Your task to perform on an android device: turn on the 12-hour format for clock Image 0: 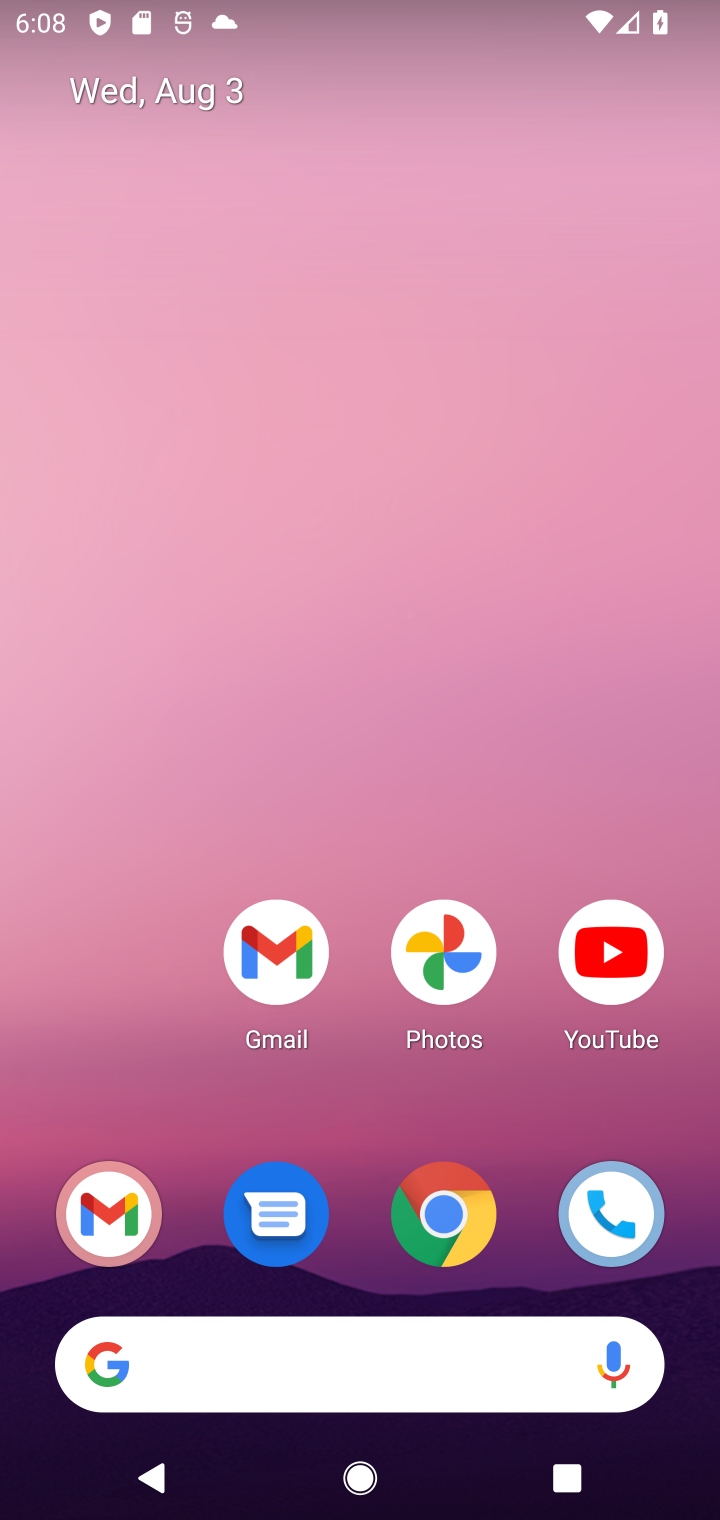
Step 0: drag from (32, 1032) to (322, 43)
Your task to perform on an android device: turn on the 12-hour format for clock Image 1: 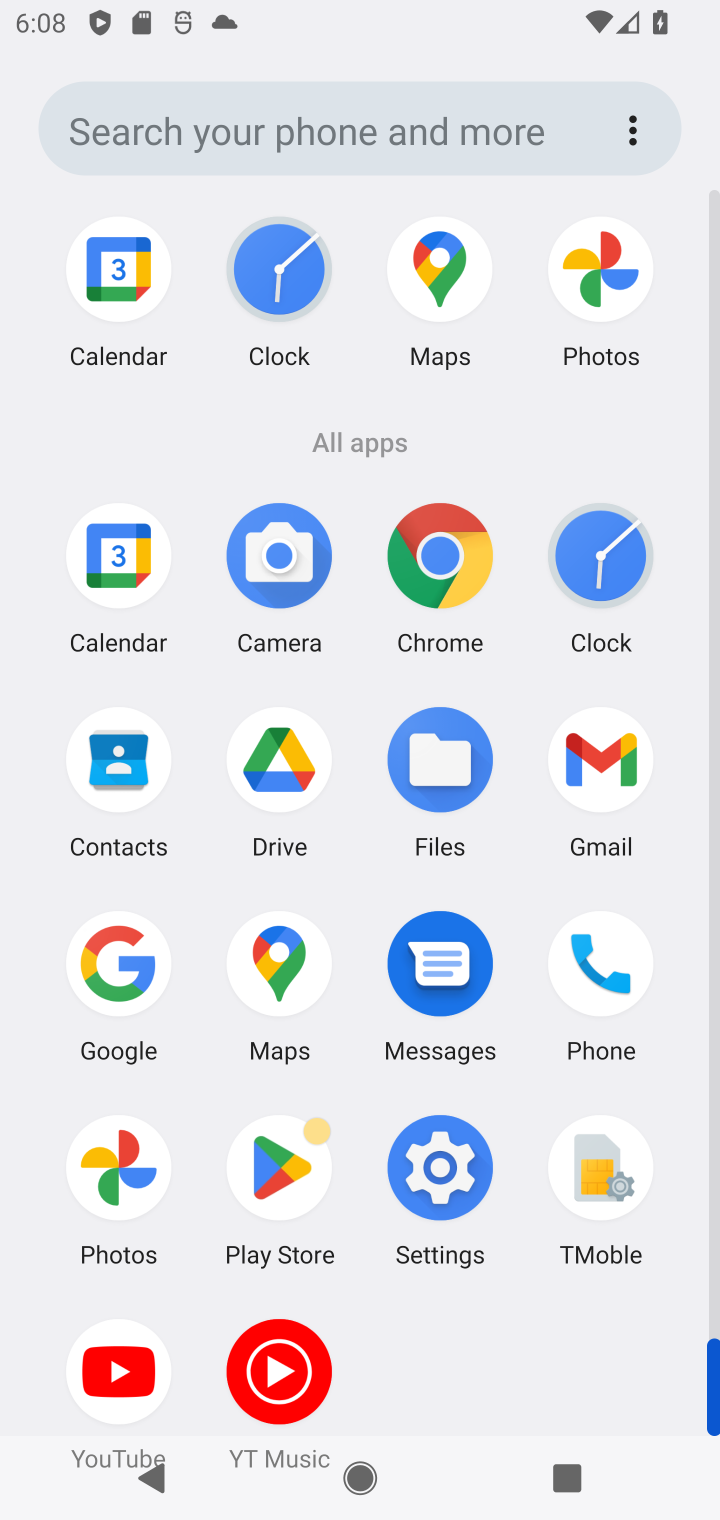
Step 1: click (609, 553)
Your task to perform on an android device: turn on the 12-hour format for clock Image 2: 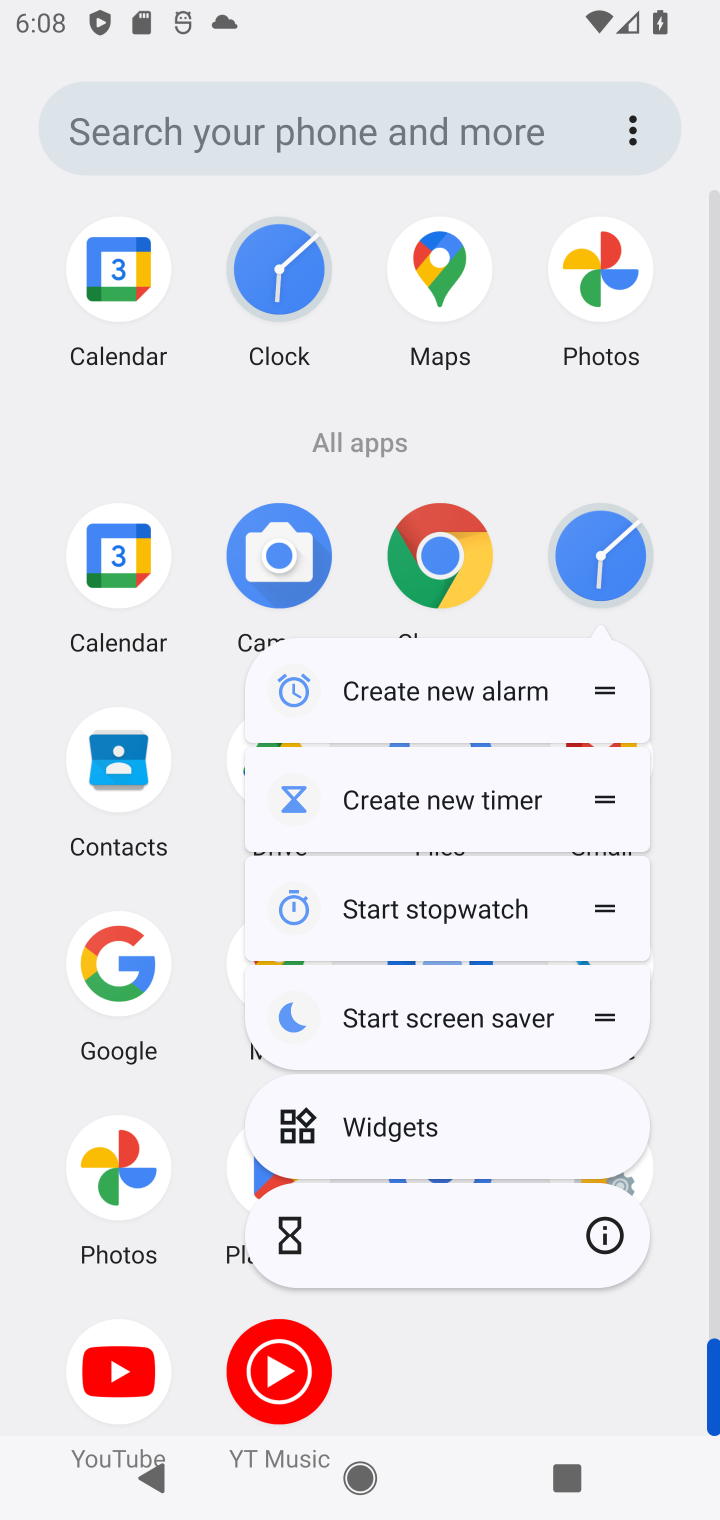
Step 2: click (574, 583)
Your task to perform on an android device: turn on the 12-hour format for clock Image 3: 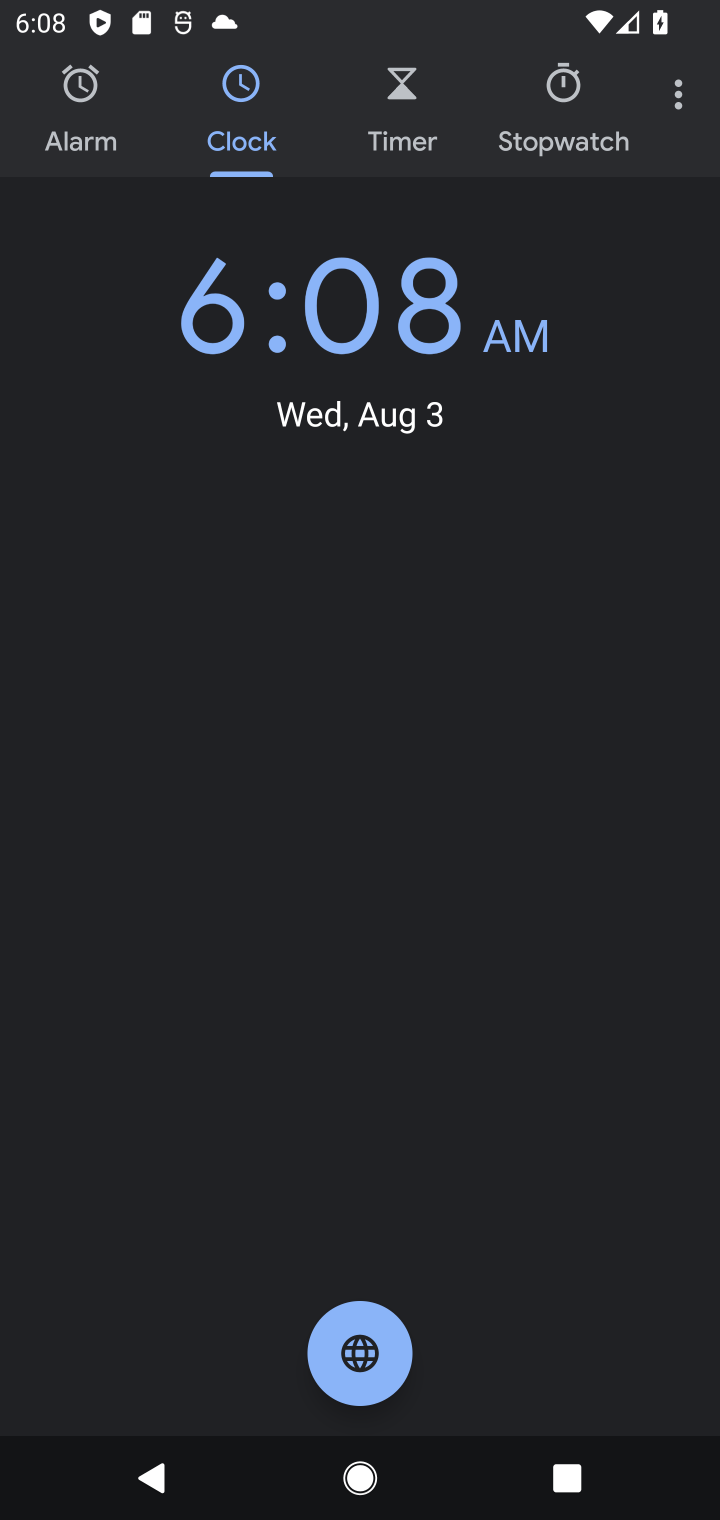
Step 3: click (676, 79)
Your task to perform on an android device: turn on the 12-hour format for clock Image 4: 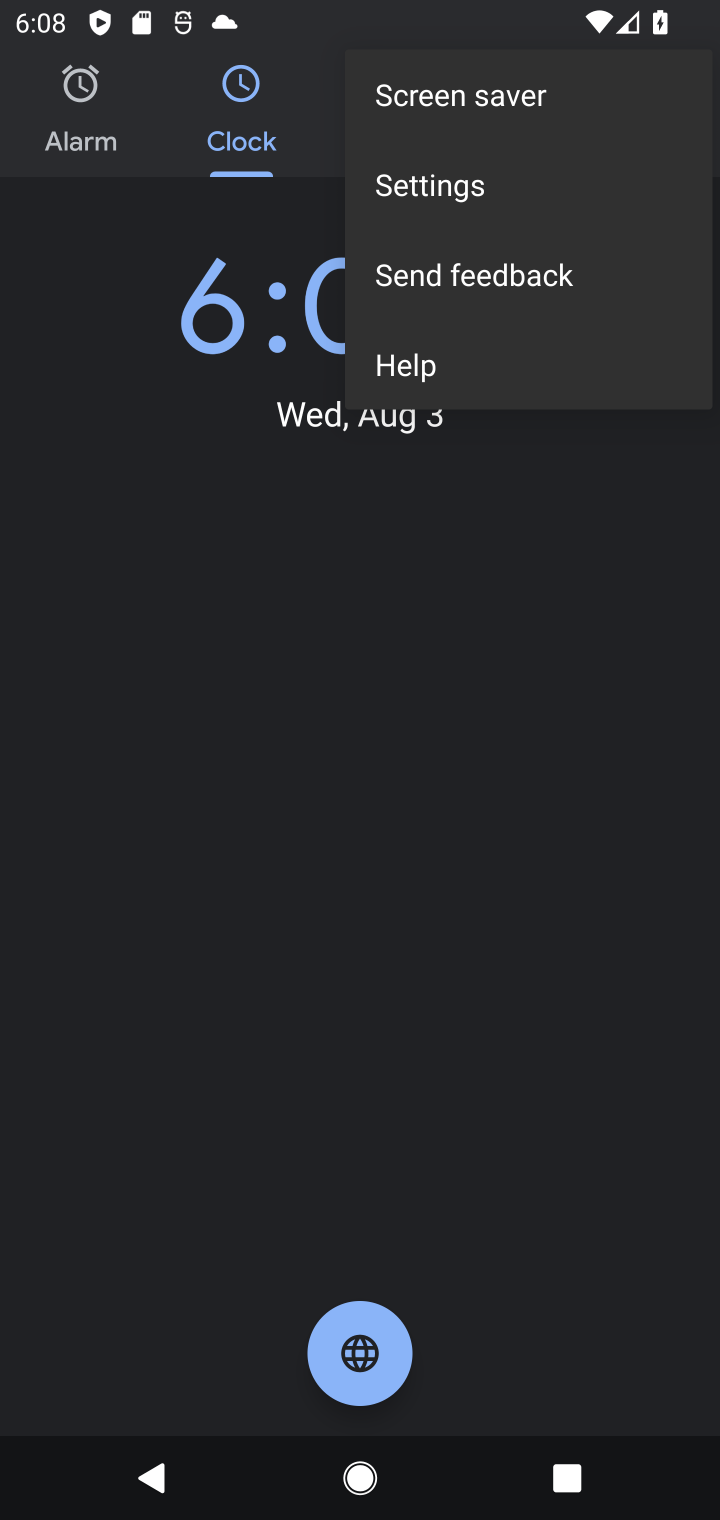
Step 4: click (473, 194)
Your task to perform on an android device: turn on the 12-hour format for clock Image 5: 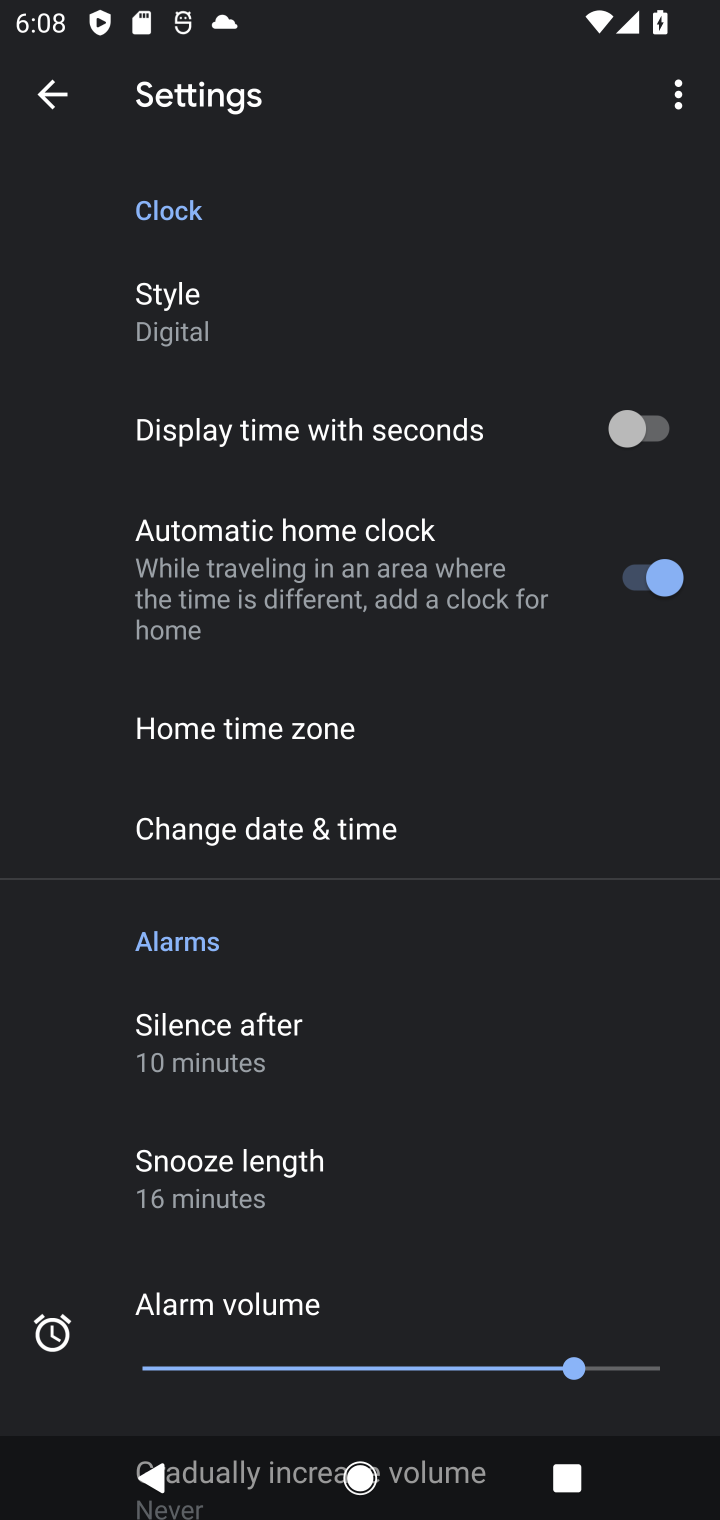
Step 5: drag from (339, 1187) to (509, 260)
Your task to perform on an android device: turn on the 12-hour format for clock Image 6: 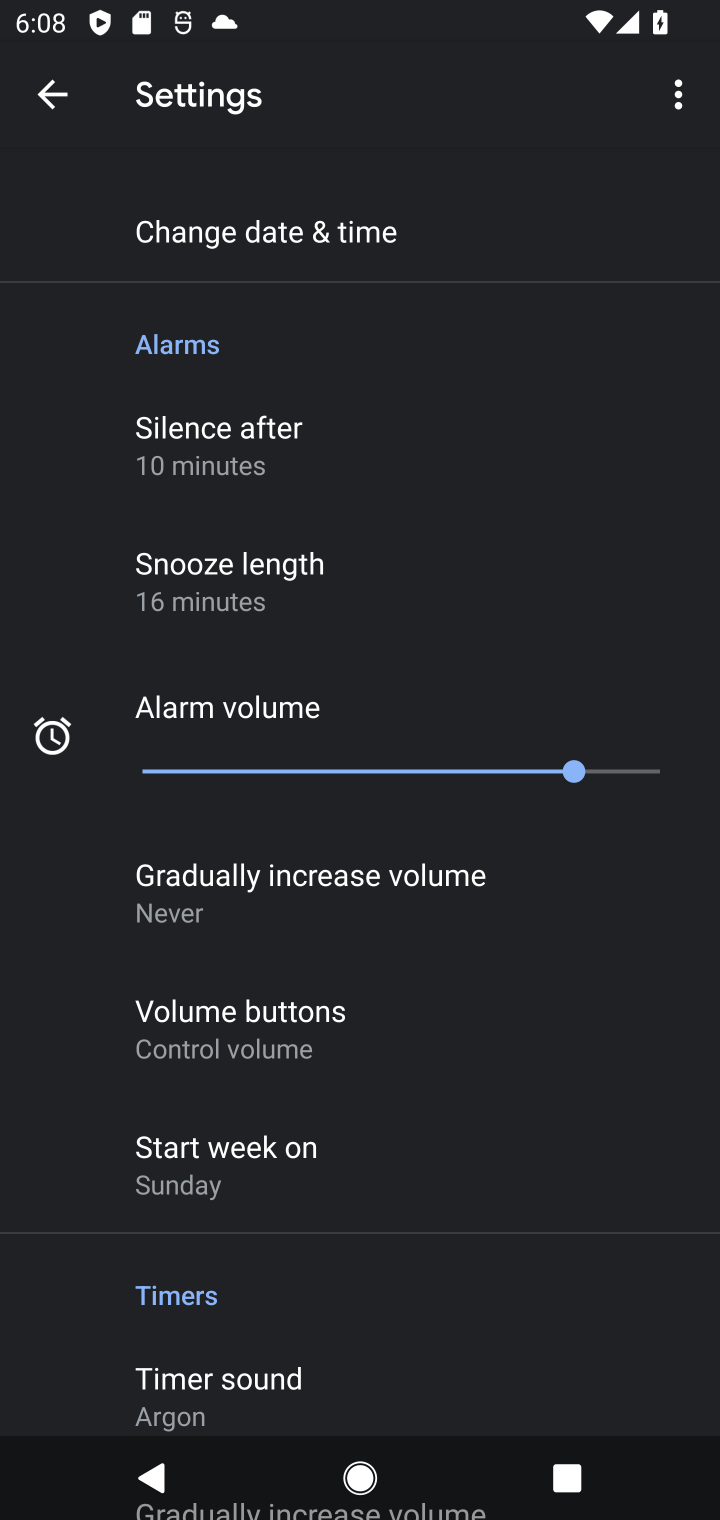
Step 6: drag from (481, 561) to (294, 1393)
Your task to perform on an android device: turn on the 12-hour format for clock Image 7: 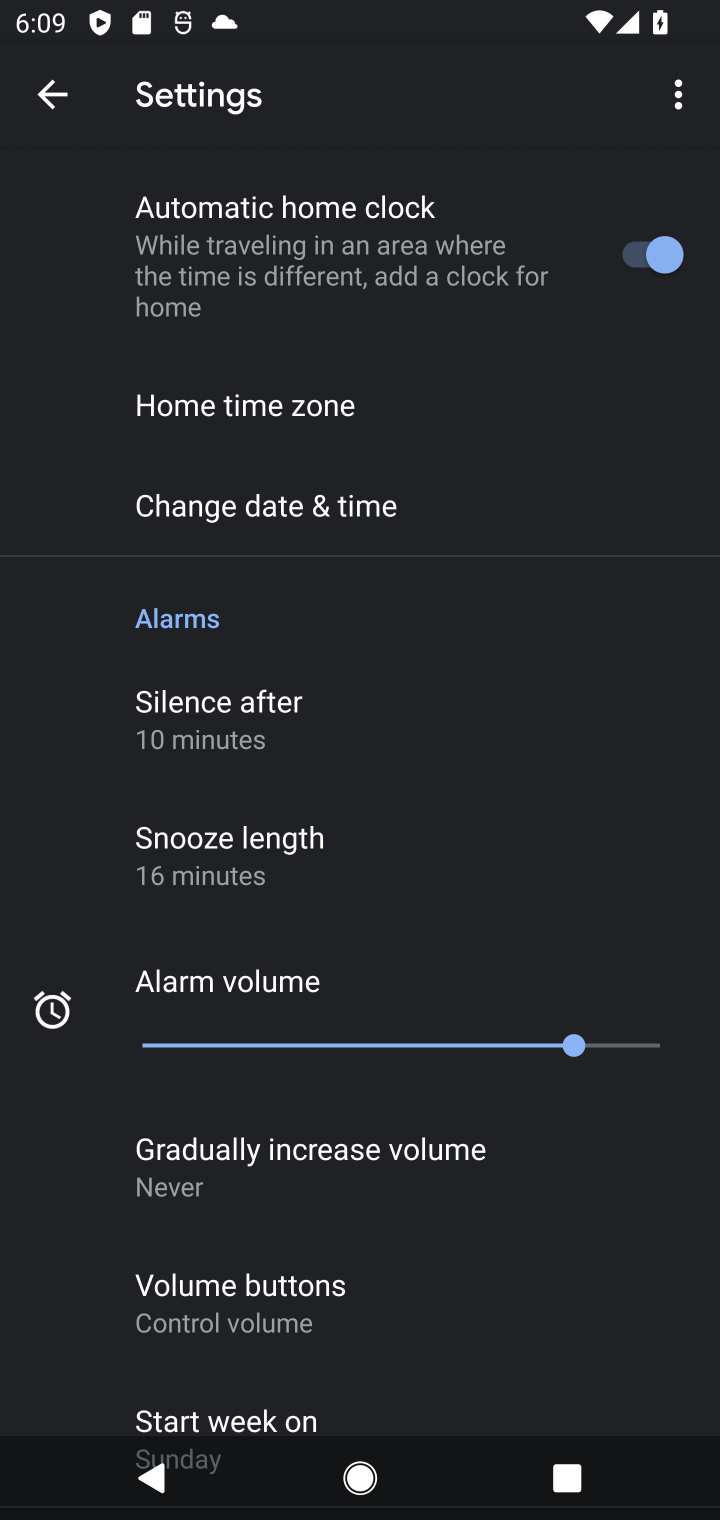
Step 7: drag from (413, 640) to (301, 1472)
Your task to perform on an android device: turn on the 12-hour format for clock Image 8: 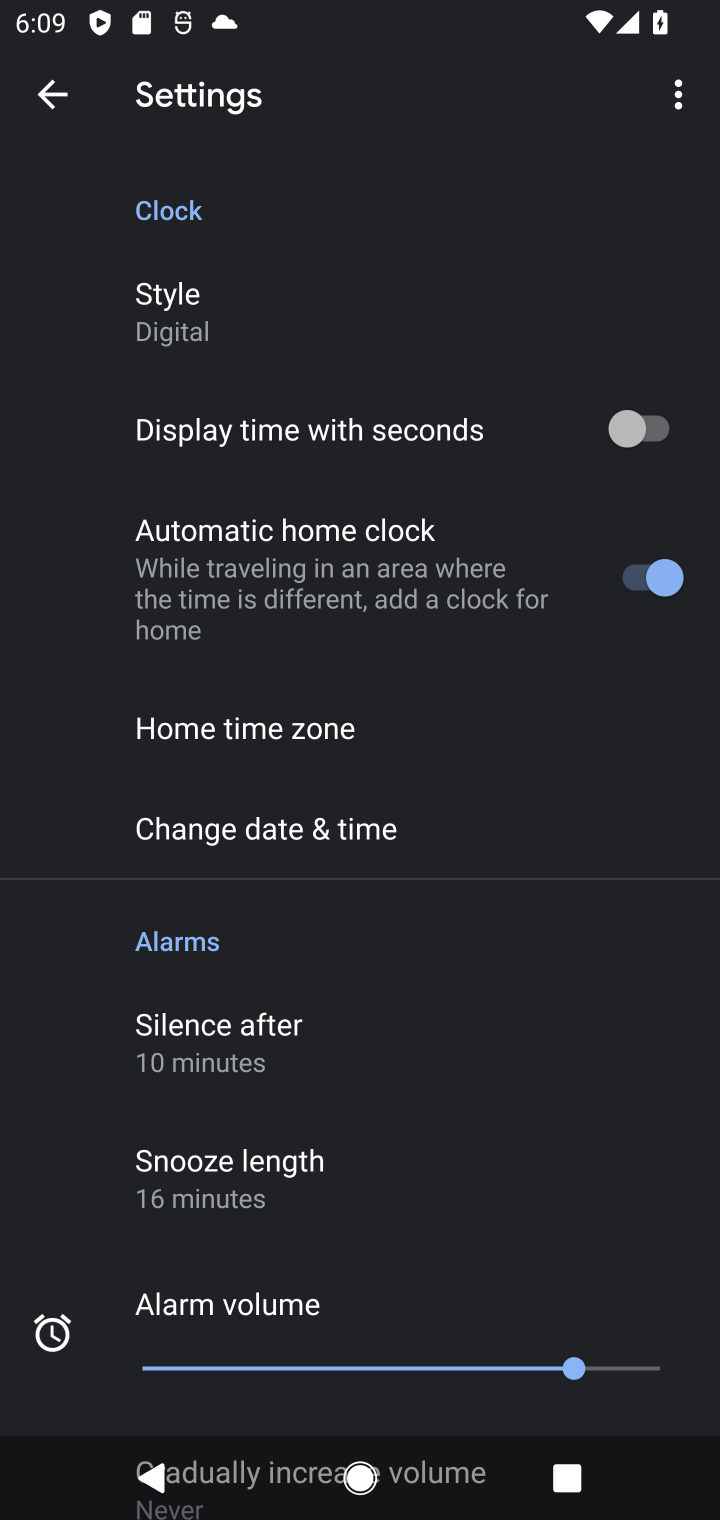
Step 8: click (284, 835)
Your task to perform on an android device: turn on the 12-hour format for clock Image 9: 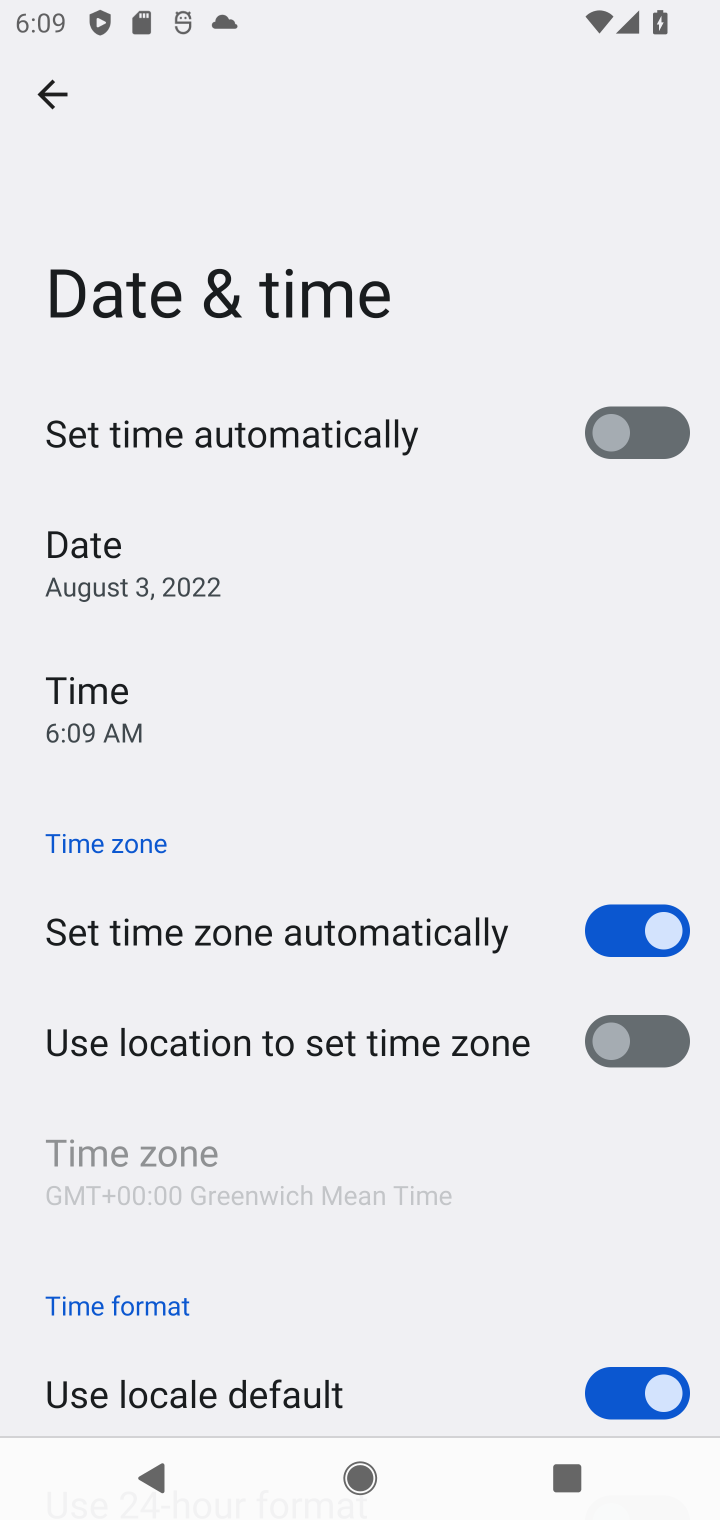
Step 9: task complete